Your task to perform on an android device: turn pop-ups on in chrome Image 0: 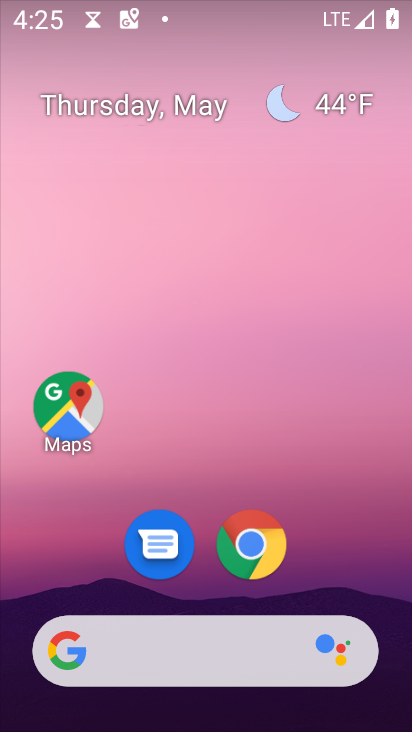
Step 0: click (248, 538)
Your task to perform on an android device: turn pop-ups on in chrome Image 1: 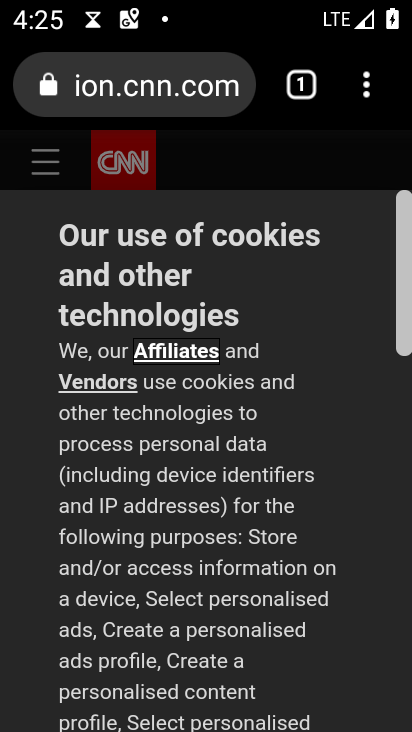
Step 1: click (371, 89)
Your task to perform on an android device: turn pop-ups on in chrome Image 2: 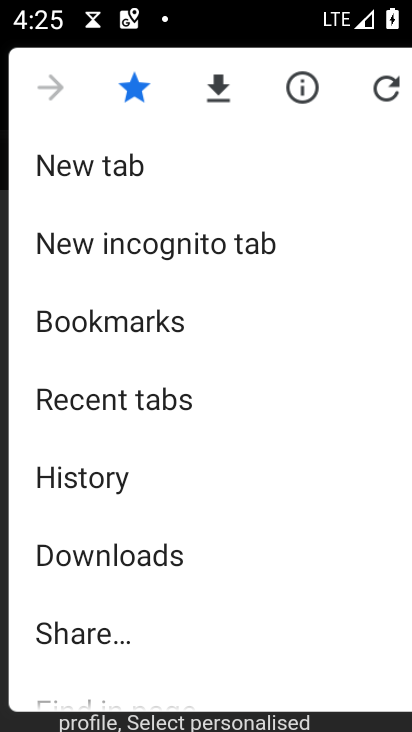
Step 2: drag from (222, 622) to (208, 295)
Your task to perform on an android device: turn pop-ups on in chrome Image 3: 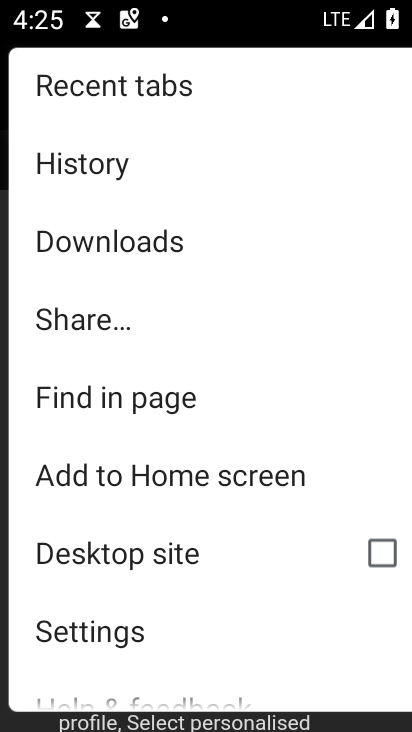
Step 3: click (155, 624)
Your task to perform on an android device: turn pop-ups on in chrome Image 4: 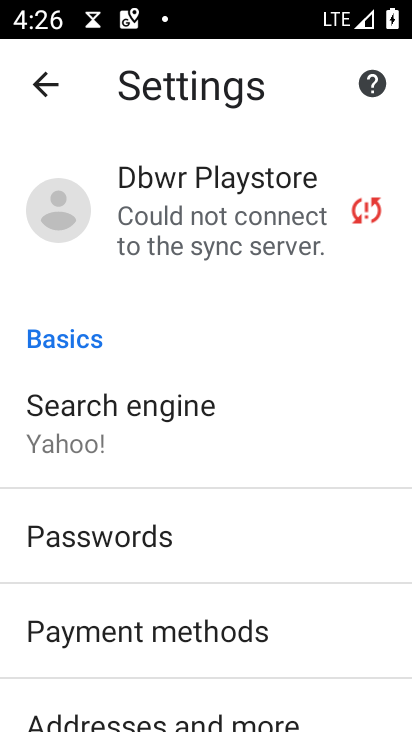
Step 4: drag from (164, 688) to (188, 450)
Your task to perform on an android device: turn pop-ups on in chrome Image 5: 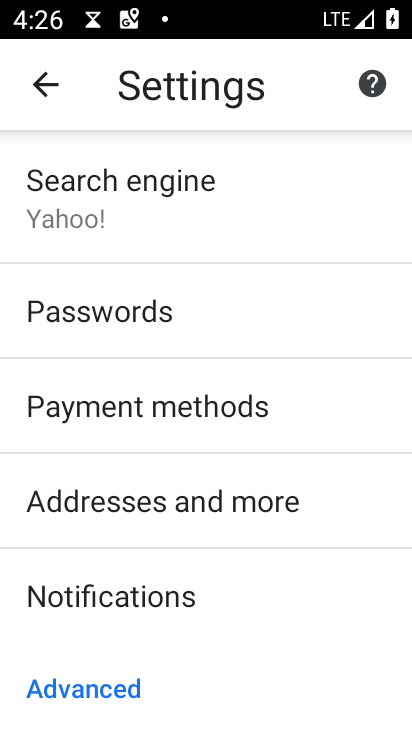
Step 5: drag from (249, 698) to (295, 450)
Your task to perform on an android device: turn pop-ups on in chrome Image 6: 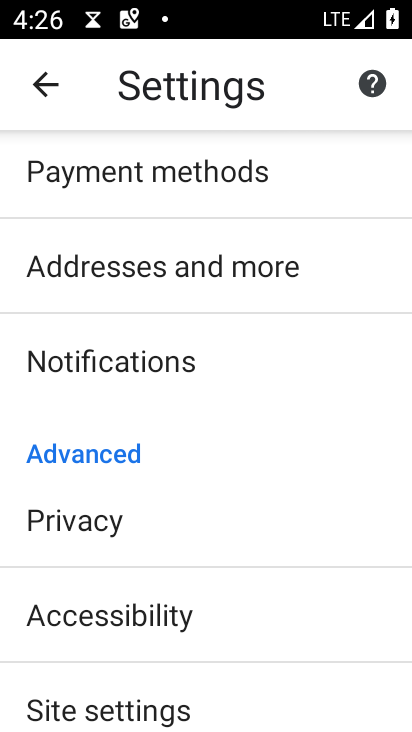
Step 6: click (221, 699)
Your task to perform on an android device: turn pop-ups on in chrome Image 7: 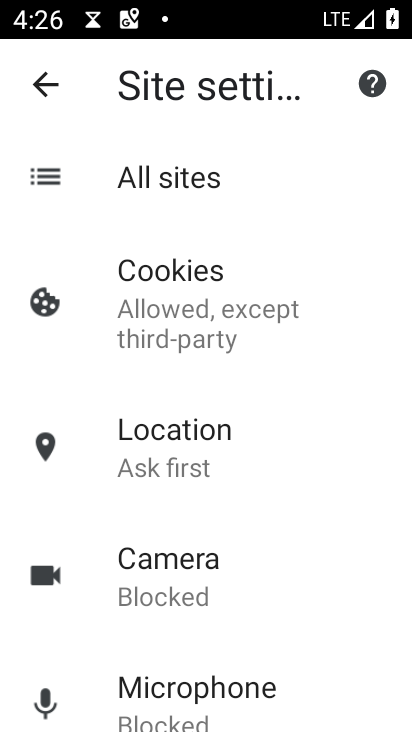
Step 7: drag from (195, 656) to (230, 245)
Your task to perform on an android device: turn pop-ups on in chrome Image 8: 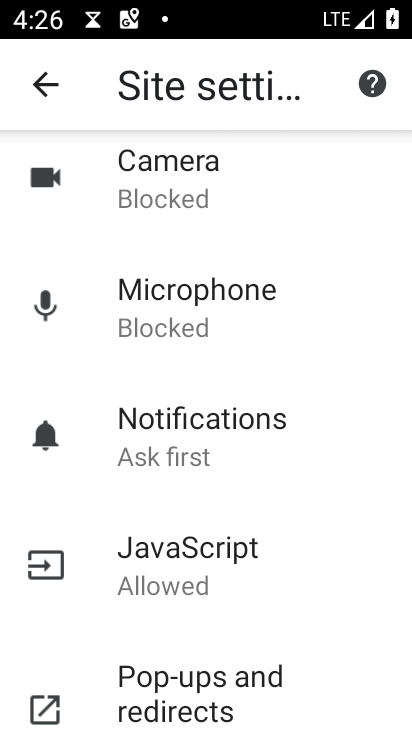
Step 8: click (198, 679)
Your task to perform on an android device: turn pop-ups on in chrome Image 9: 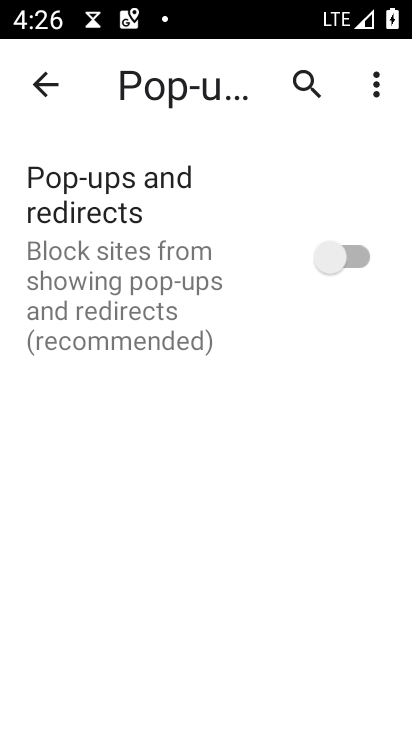
Step 9: click (327, 254)
Your task to perform on an android device: turn pop-ups on in chrome Image 10: 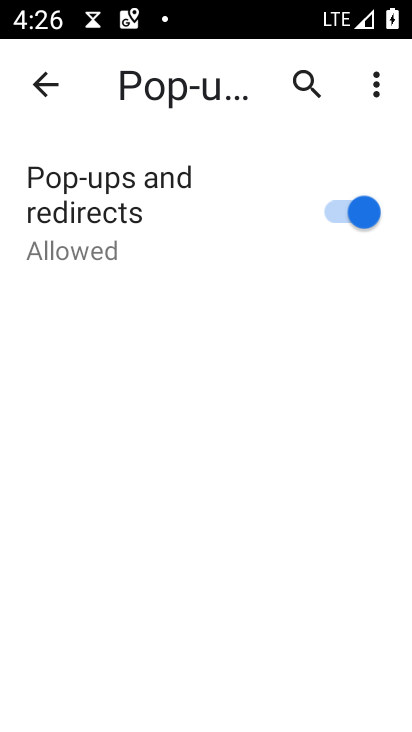
Step 10: task complete